Your task to perform on an android device: Open the phone app and click the voicemail tab. Image 0: 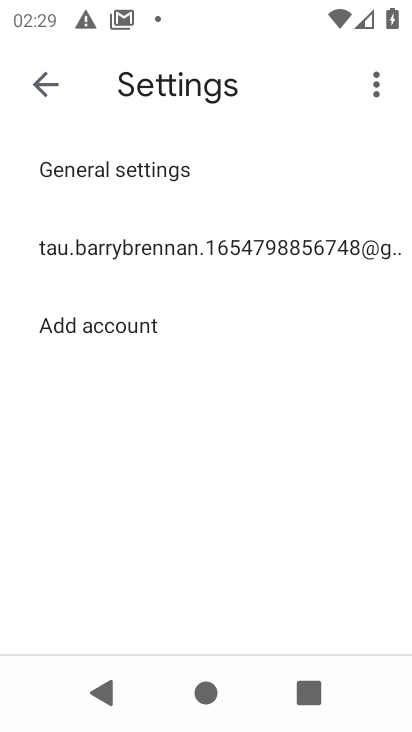
Step 0: press home button
Your task to perform on an android device: Open the phone app and click the voicemail tab. Image 1: 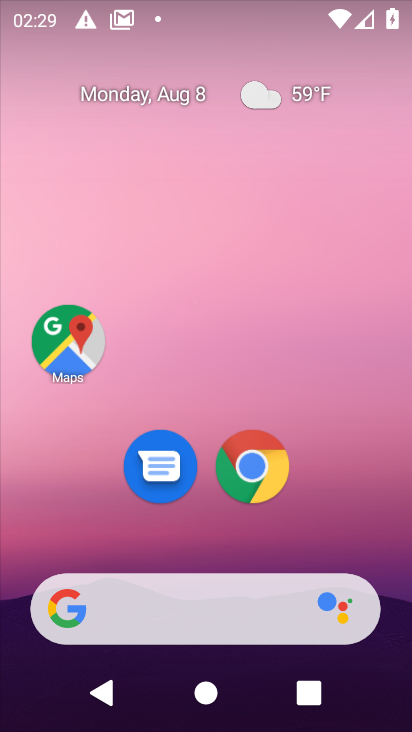
Step 1: drag from (181, 608) to (187, 127)
Your task to perform on an android device: Open the phone app and click the voicemail tab. Image 2: 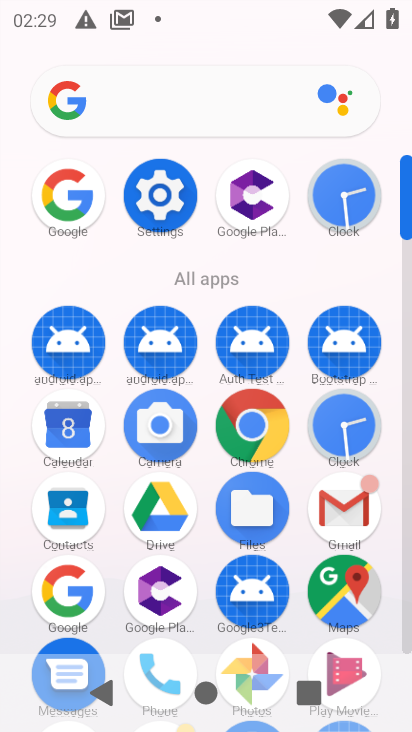
Step 2: drag from (210, 571) to (239, 172)
Your task to perform on an android device: Open the phone app and click the voicemail tab. Image 3: 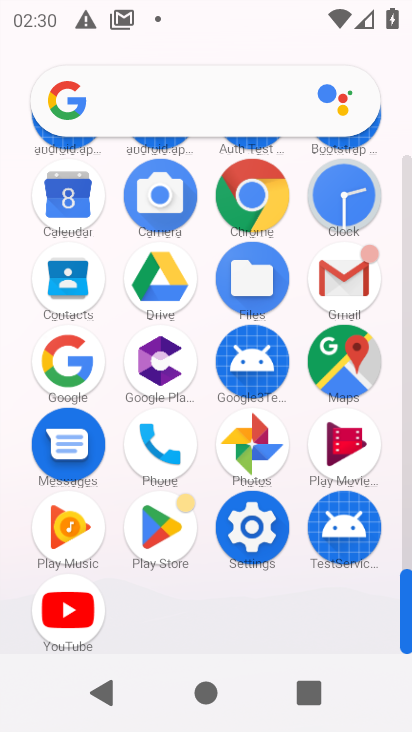
Step 3: click (181, 445)
Your task to perform on an android device: Open the phone app and click the voicemail tab. Image 4: 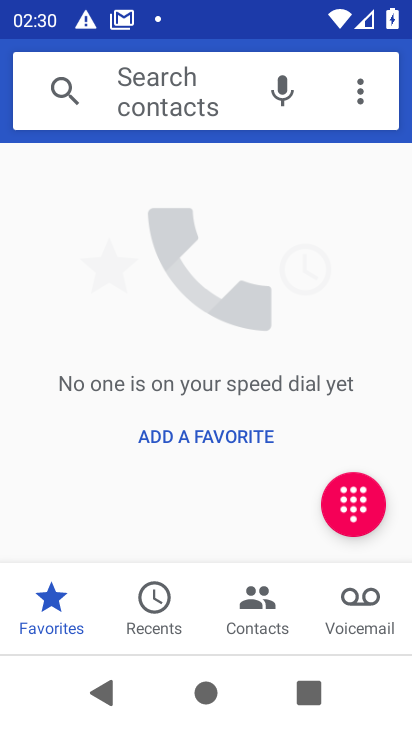
Step 4: click (368, 624)
Your task to perform on an android device: Open the phone app and click the voicemail tab. Image 5: 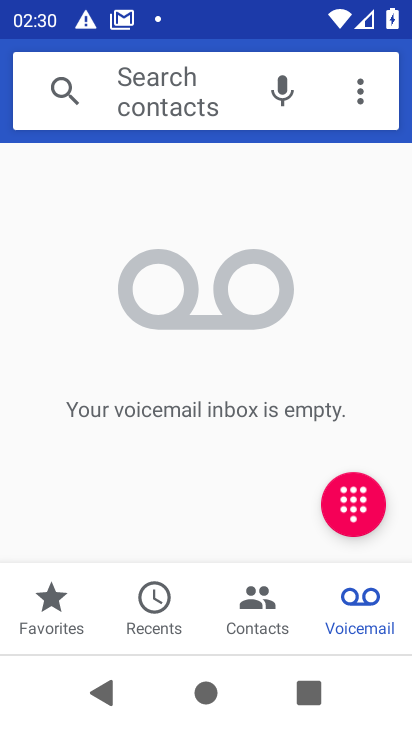
Step 5: task complete